Your task to perform on an android device: Go to display settings Image 0: 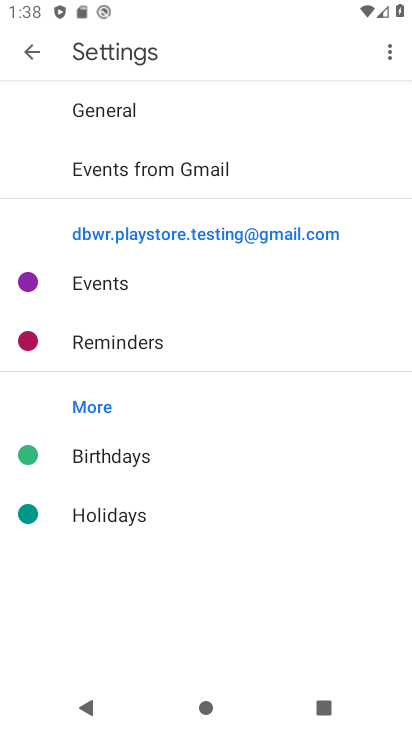
Step 0: press home button
Your task to perform on an android device: Go to display settings Image 1: 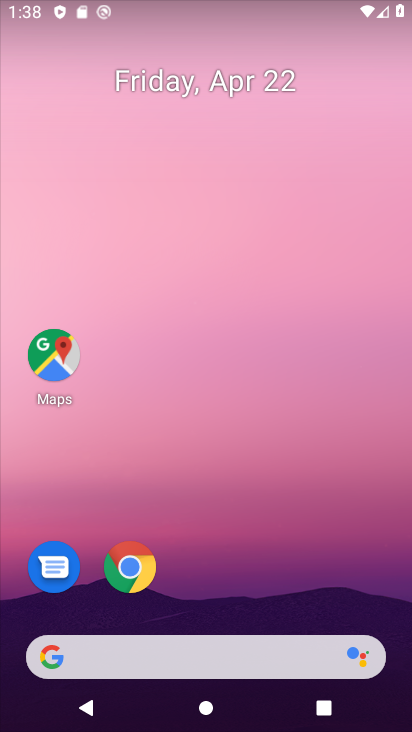
Step 1: drag from (221, 563) to (303, 124)
Your task to perform on an android device: Go to display settings Image 2: 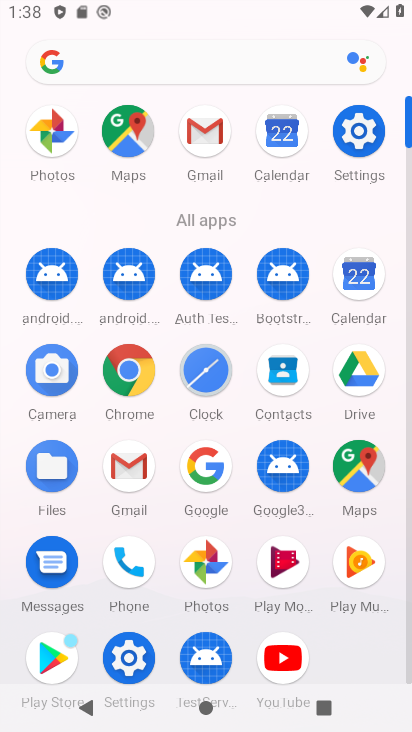
Step 2: click (372, 142)
Your task to perform on an android device: Go to display settings Image 3: 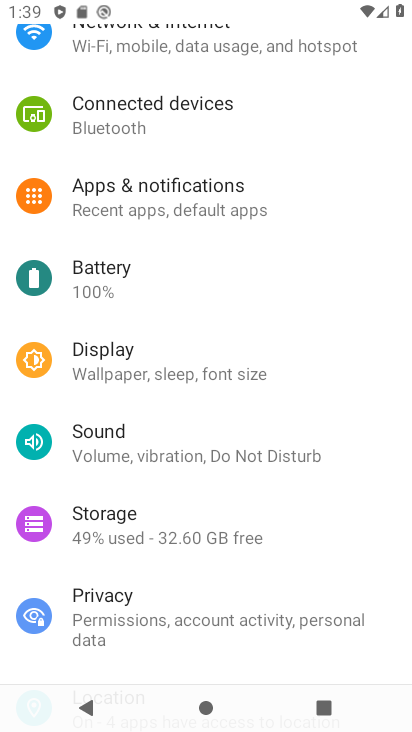
Step 3: click (194, 354)
Your task to perform on an android device: Go to display settings Image 4: 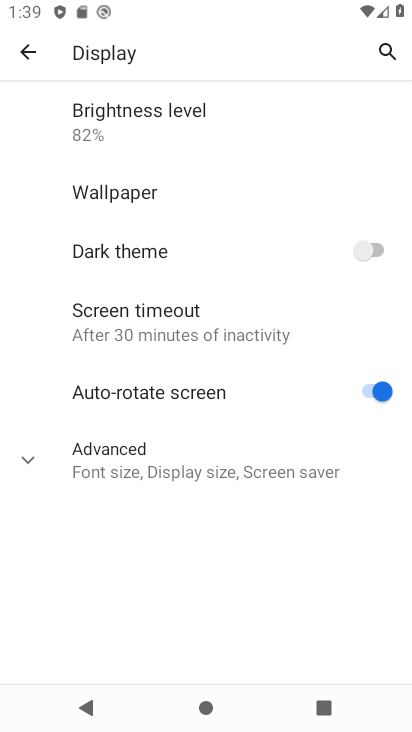
Step 4: task complete